Your task to perform on an android device: toggle translation in the chrome app Image 0: 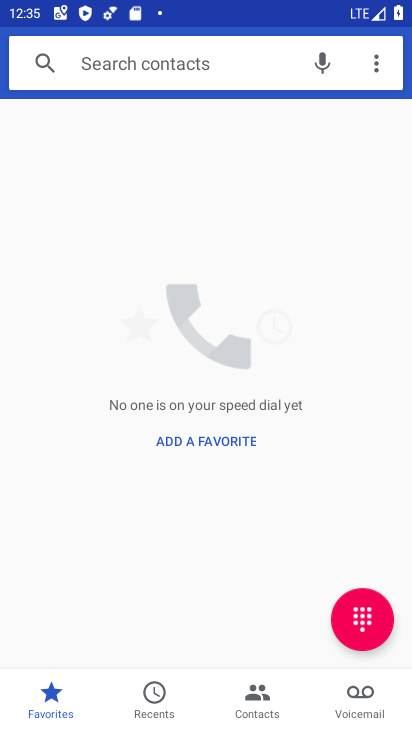
Step 0: press home button
Your task to perform on an android device: toggle translation in the chrome app Image 1: 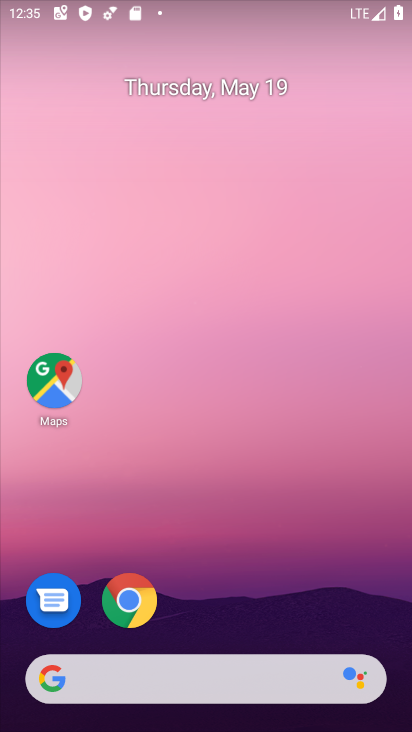
Step 1: click (126, 599)
Your task to perform on an android device: toggle translation in the chrome app Image 2: 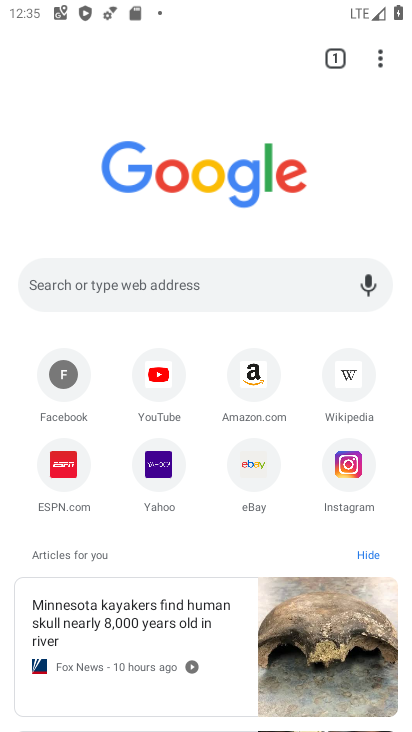
Step 2: click (380, 57)
Your task to perform on an android device: toggle translation in the chrome app Image 3: 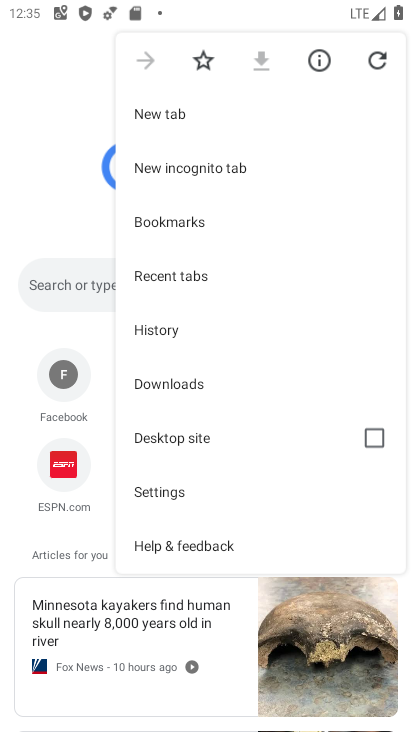
Step 3: click (176, 490)
Your task to perform on an android device: toggle translation in the chrome app Image 4: 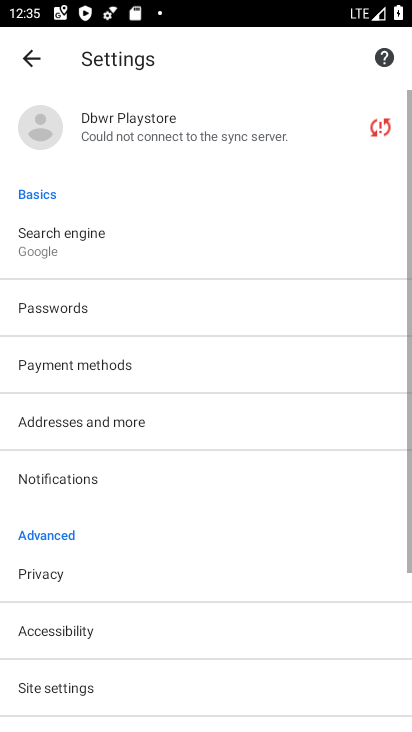
Step 4: drag from (203, 475) to (153, 213)
Your task to perform on an android device: toggle translation in the chrome app Image 5: 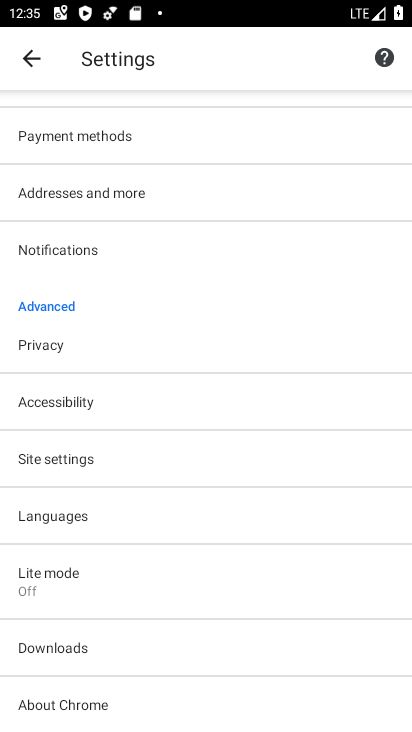
Step 5: click (75, 517)
Your task to perform on an android device: toggle translation in the chrome app Image 6: 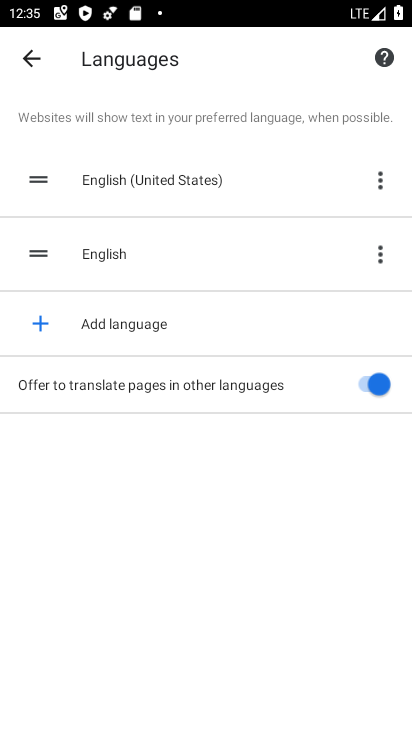
Step 6: click (377, 381)
Your task to perform on an android device: toggle translation in the chrome app Image 7: 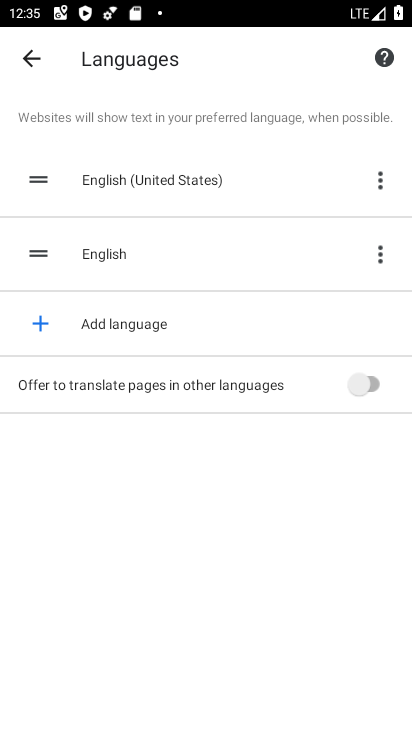
Step 7: task complete